Your task to perform on an android device: toggle javascript in the chrome app Image 0: 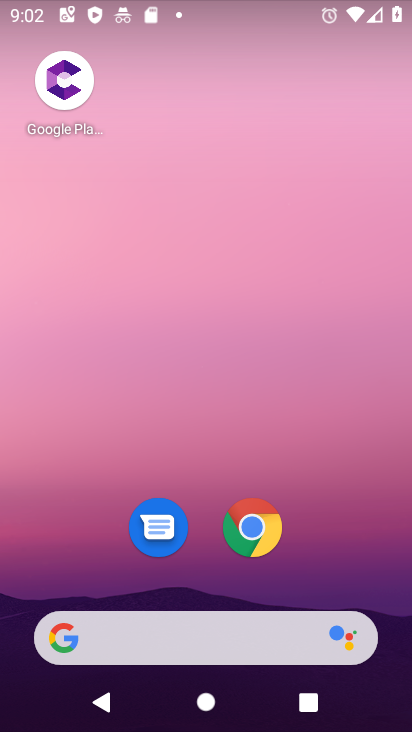
Step 0: click (255, 533)
Your task to perform on an android device: toggle javascript in the chrome app Image 1: 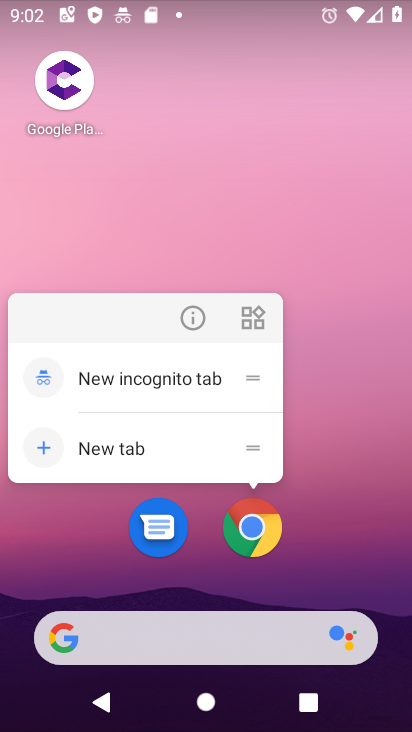
Step 1: click (255, 533)
Your task to perform on an android device: toggle javascript in the chrome app Image 2: 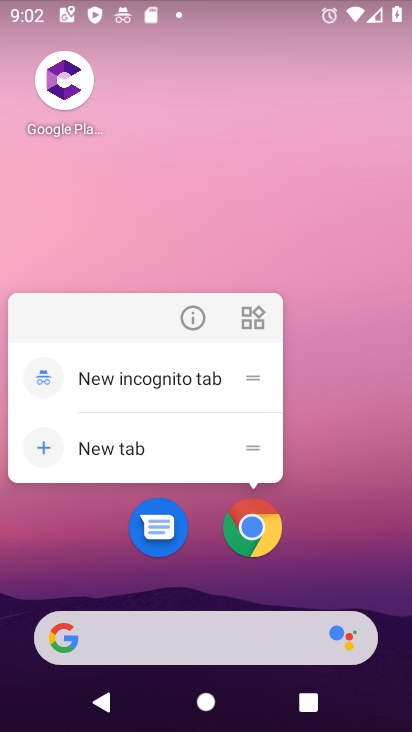
Step 2: click (255, 533)
Your task to perform on an android device: toggle javascript in the chrome app Image 3: 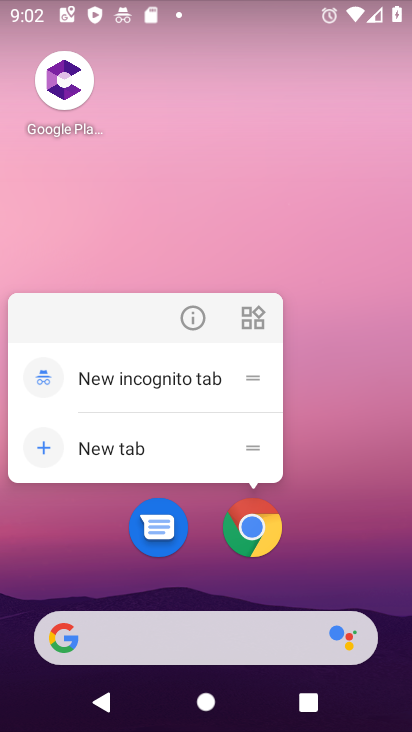
Step 3: click (255, 533)
Your task to perform on an android device: toggle javascript in the chrome app Image 4: 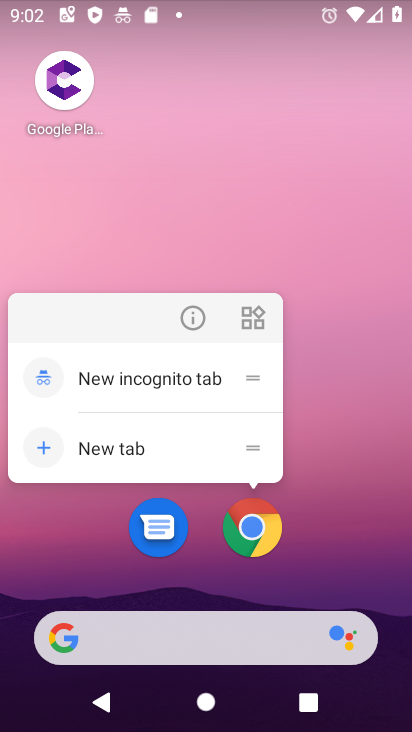
Step 4: click (255, 533)
Your task to perform on an android device: toggle javascript in the chrome app Image 5: 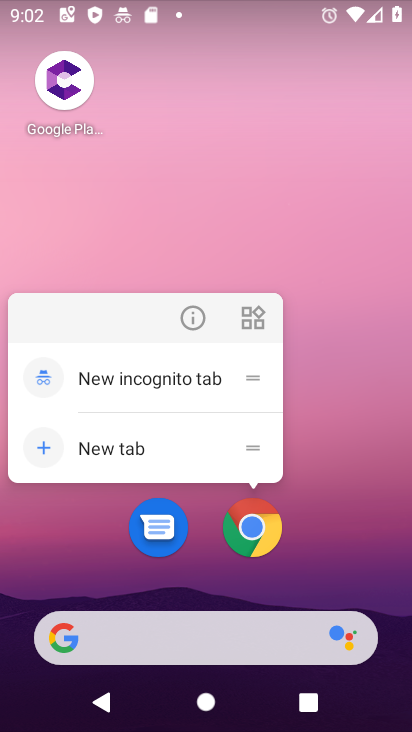
Step 5: click (255, 533)
Your task to perform on an android device: toggle javascript in the chrome app Image 6: 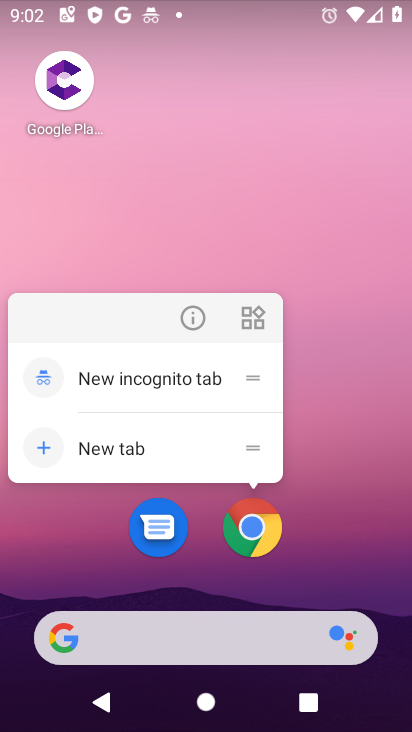
Step 6: drag from (310, 428) to (257, 531)
Your task to perform on an android device: toggle javascript in the chrome app Image 7: 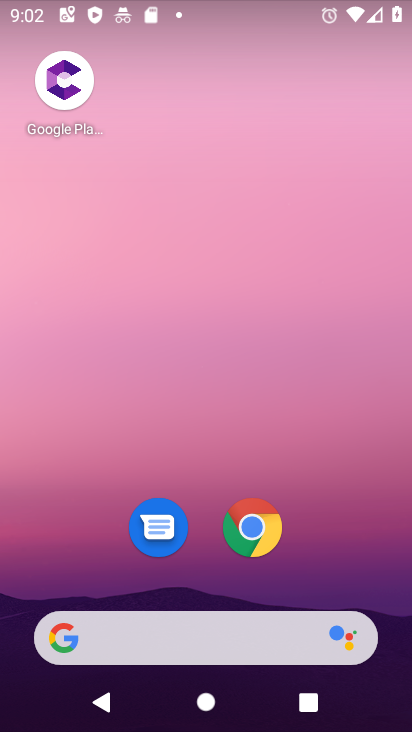
Step 7: click (257, 531)
Your task to perform on an android device: toggle javascript in the chrome app Image 8: 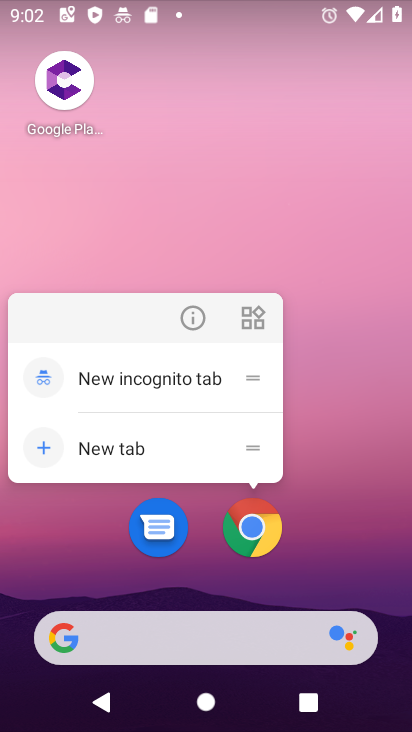
Step 8: click (257, 531)
Your task to perform on an android device: toggle javascript in the chrome app Image 9: 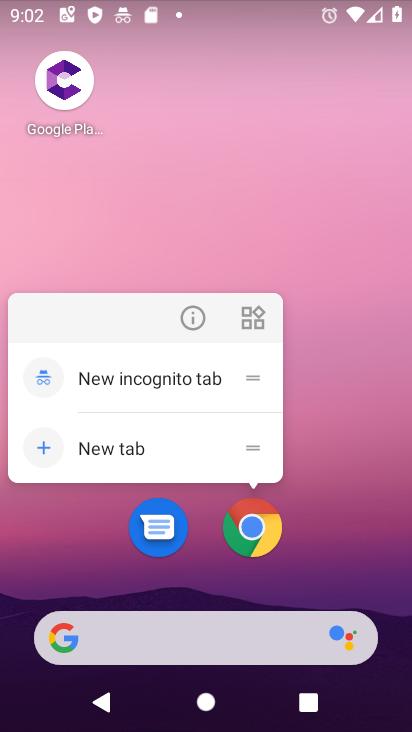
Step 9: click (257, 531)
Your task to perform on an android device: toggle javascript in the chrome app Image 10: 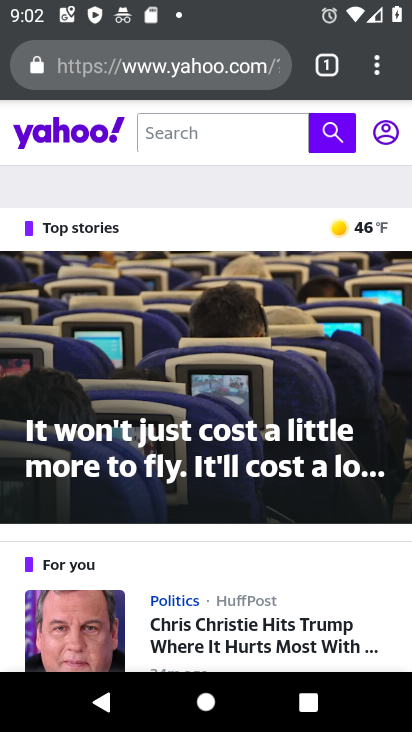
Step 10: drag from (375, 61) to (170, 578)
Your task to perform on an android device: toggle javascript in the chrome app Image 11: 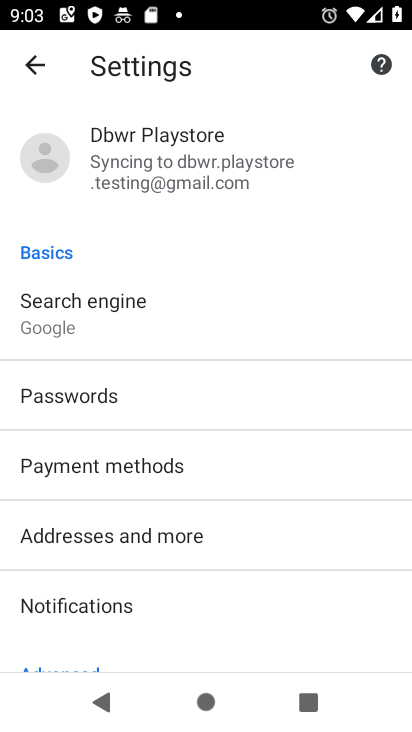
Step 11: drag from (180, 514) to (180, 147)
Your task to perform on an android device: toggle javascript in the chrome app Image 12: 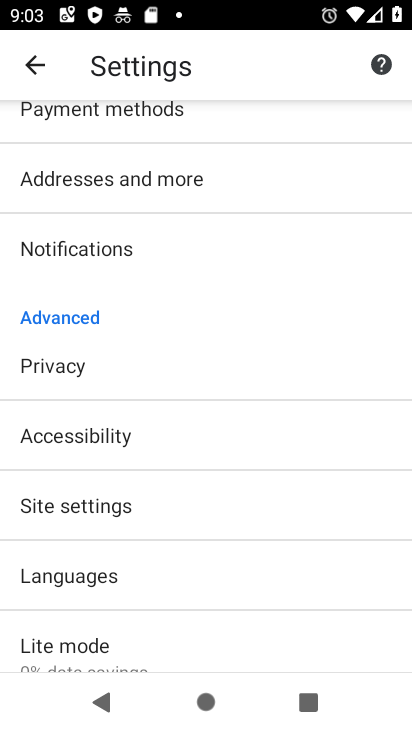
Step 12: click (103, 513)
Your task to perform on an android device: toggle javascript in the chrome app Image 13: 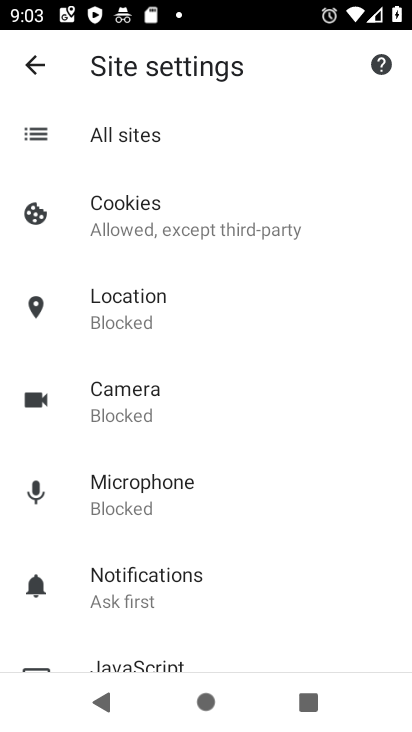
Step 13: drag from (169, 570) to (162, 217)
Your task to perform on an android device: toggle javascript in the chrome app Image 14: 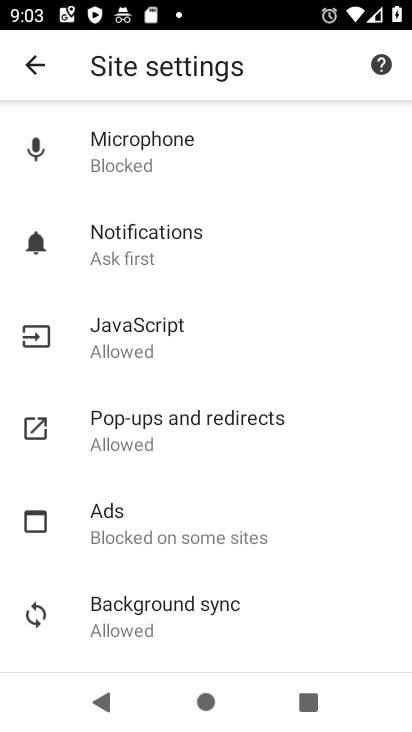
Step 14: click (123, 347)
Your task to perform on an android device: toggle javascript in the chrome app Image 15: 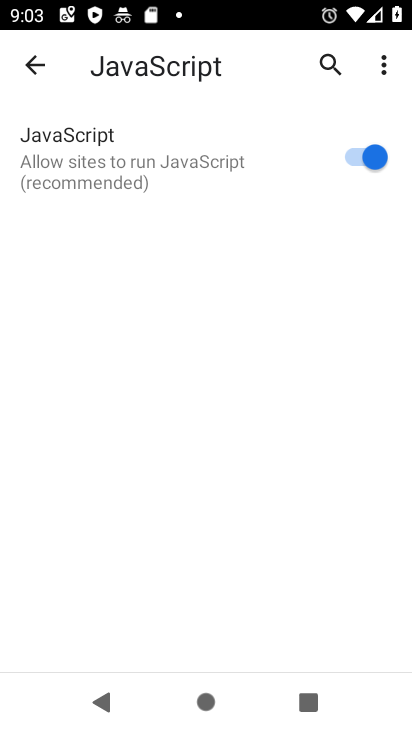
Step 15: click (368, 164)
Your task to perform on an android device: toggle javascript in the chrome app Image 16: 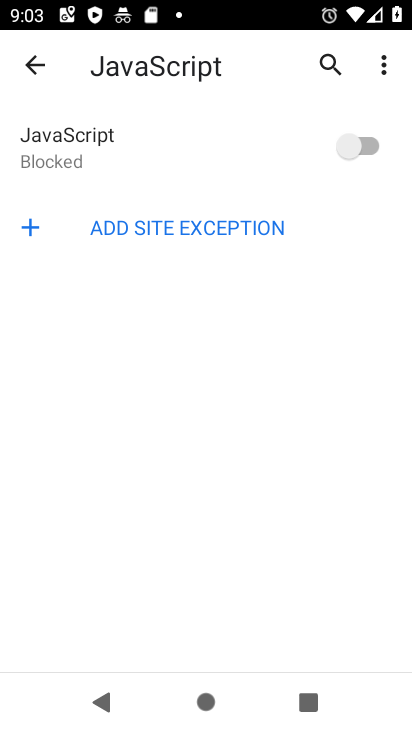
Step 16: task complete